Your task to perform on an android device: Go to Amazon Image 0: 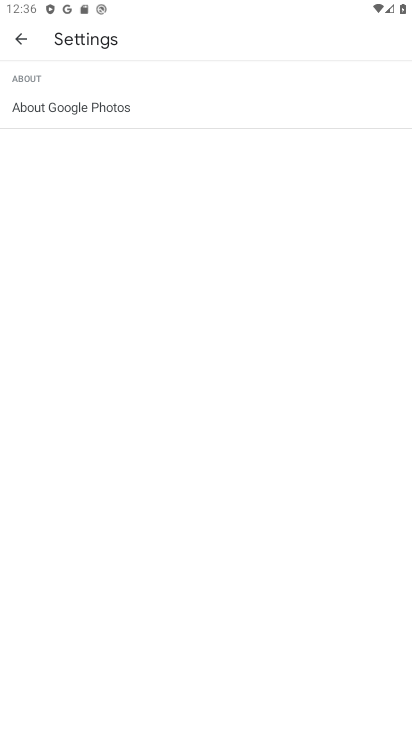
Step 0: press back button
Your task to perform on an android device: Go to Amazon Image 1: 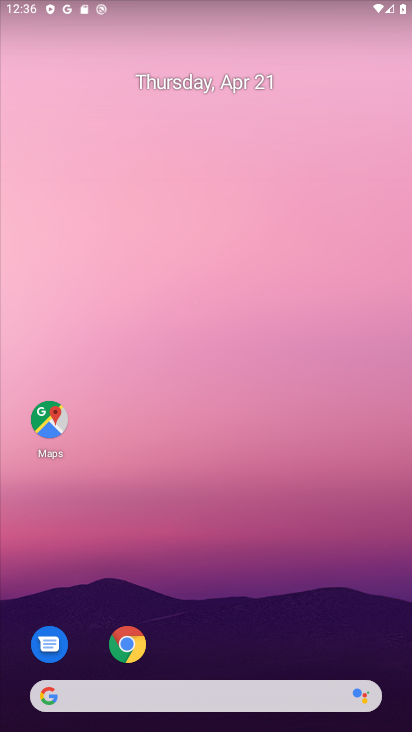
Step 1: drag from (260, 612) to (222, 150)
Your task to perform on an android device: Go to Amazon Image 2: 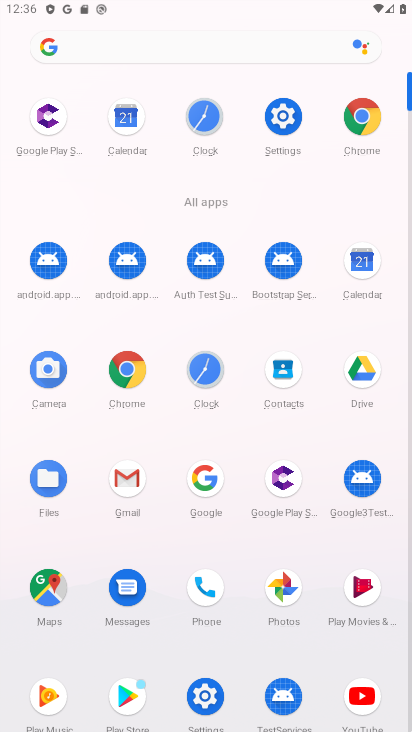
Step 2: click (131, 375)
Your task to perform on an android device: Go to Amazon Image 3: 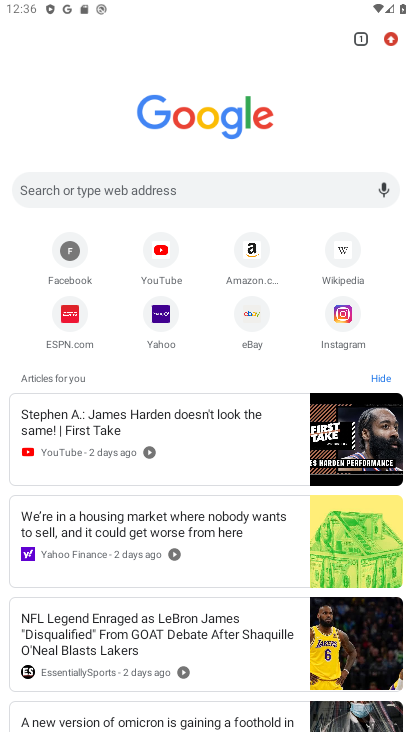
Step 3: click (253, 254)
Your task to perform on an android device: Go to Amazon Image 4: 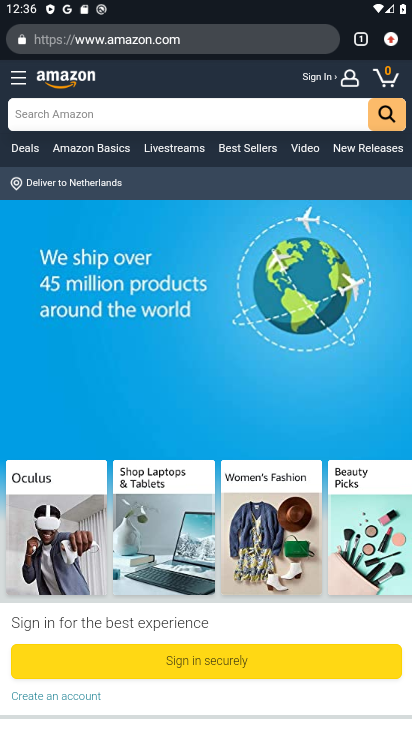
Step 4: task complete